Your task to perform on an android device: change keyboard looks Image 0: 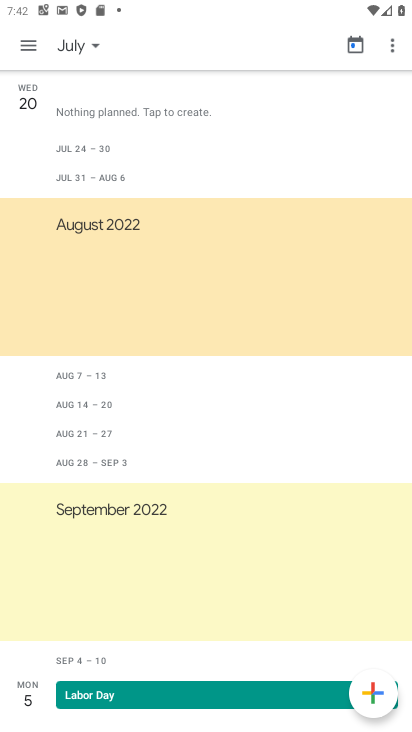
Step 0: press home button
Your task to perform on an android device: change keyboard looks Image 1: 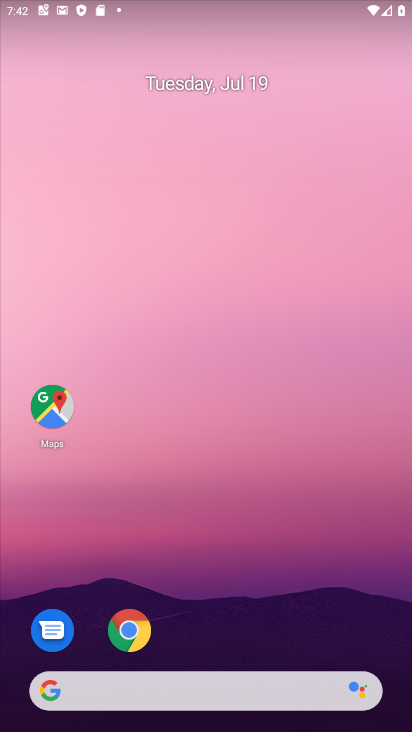
Step 1: drag from (299, 634) to (238, 91)
Your task to perform on an android device: change keyboard looks Image 2: 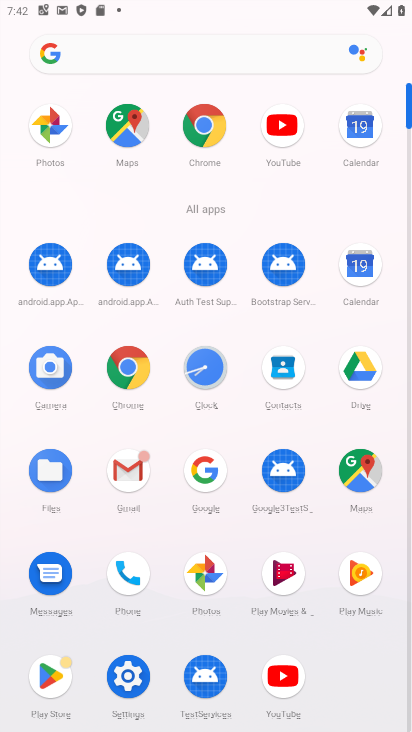
Step 2: click (127, 689)
Your task to perform on an android device: change keyboard looks Image 3: 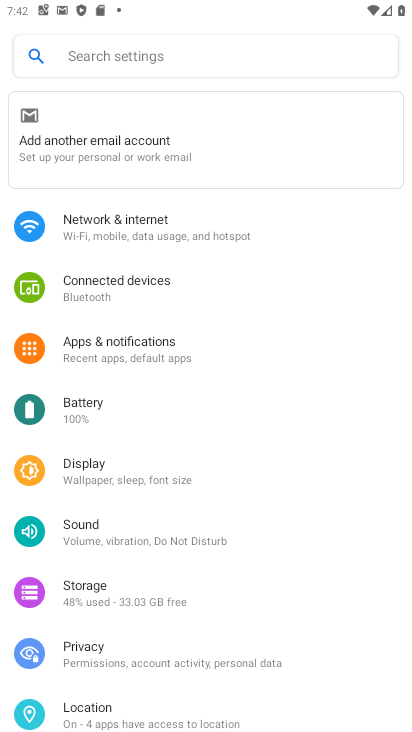
Step 3: drag from (275, 650) to (306, 174)
Your task to perform on an android device: change keyboard looks Image 4: 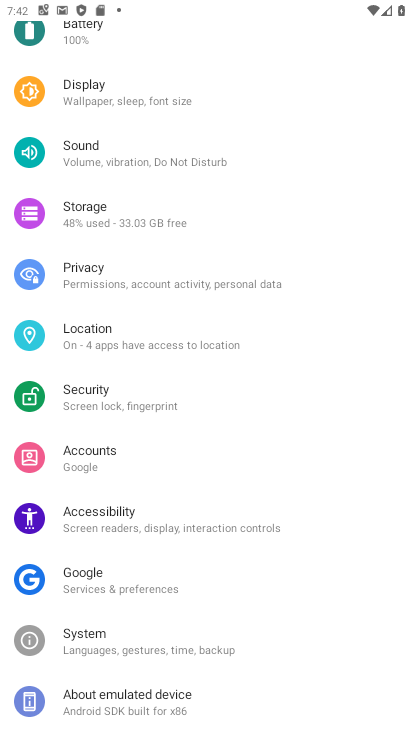
Step 4: click (168, 641)
Your task to perform on an android device: change keyboard looks Image 5: 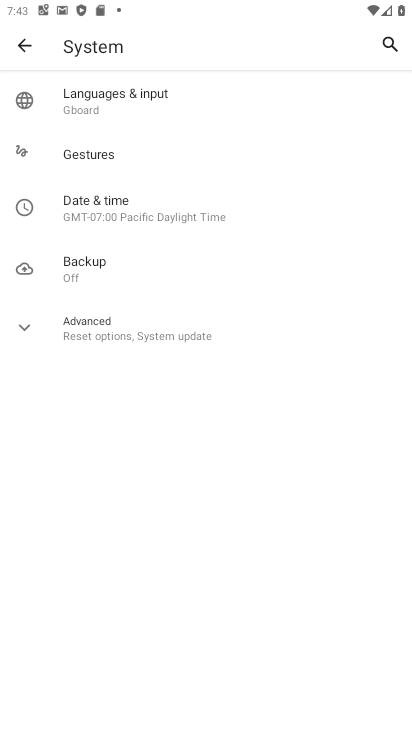
Step 5: click (92, 99)
Your task to perform on an android device: change keyboard looks Image 6: 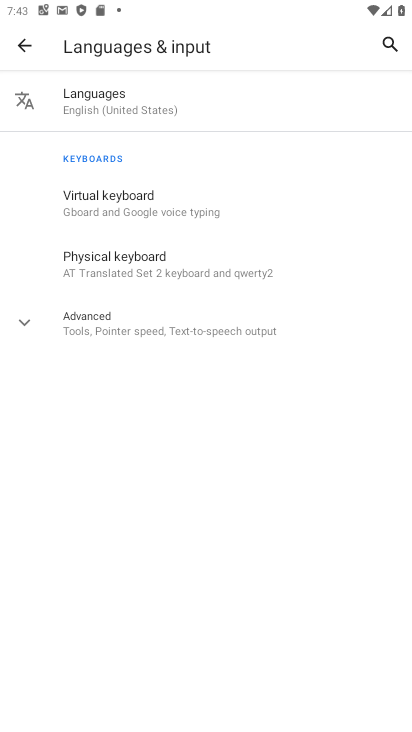
Step 6: click (123, 212)
Your task to perform on an android device: change keyboard looks Image 7: 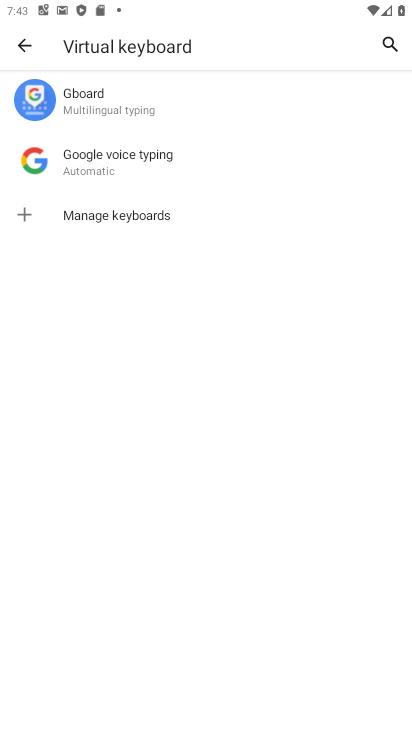
Step 7: click (105, 114)
Your task to perform on an android device: change keyboard looks Image 8: 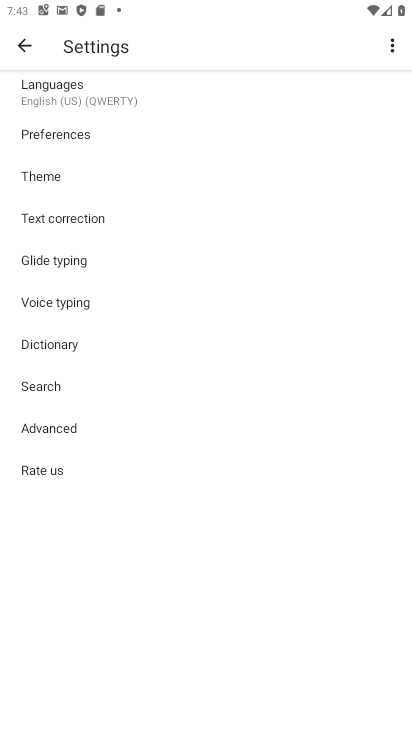
Step 8: click (38, 172)
Your task to perform on an android device: change keyboard looks Image 9: 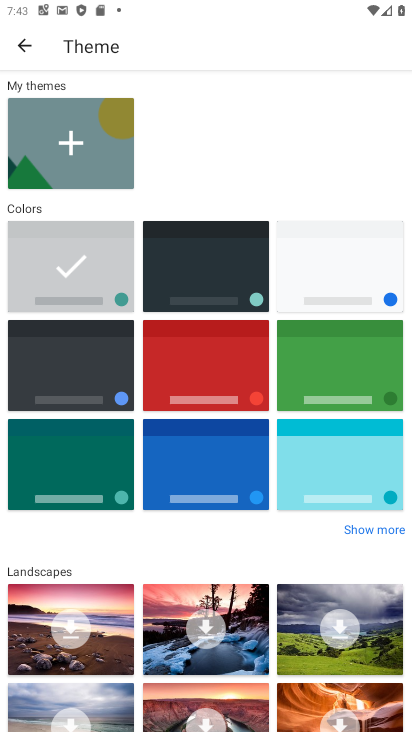
Step 9: click (341, 272)
Your task to perform on an android device: change keyboard looks Image 10: 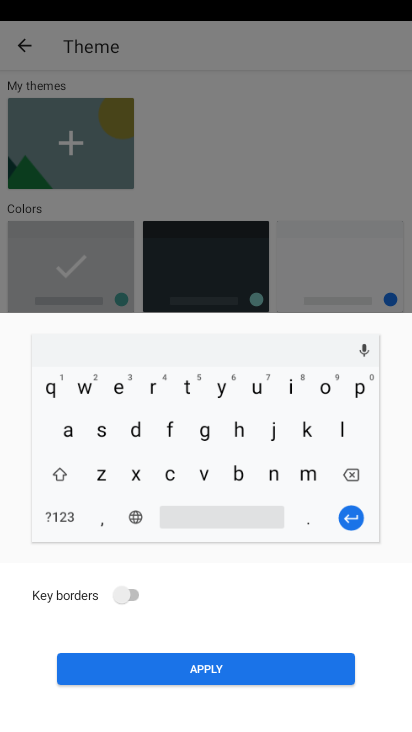
Step 10: click (202, 660)
Your task to perform on an android device: change keyboard looks Image 11: 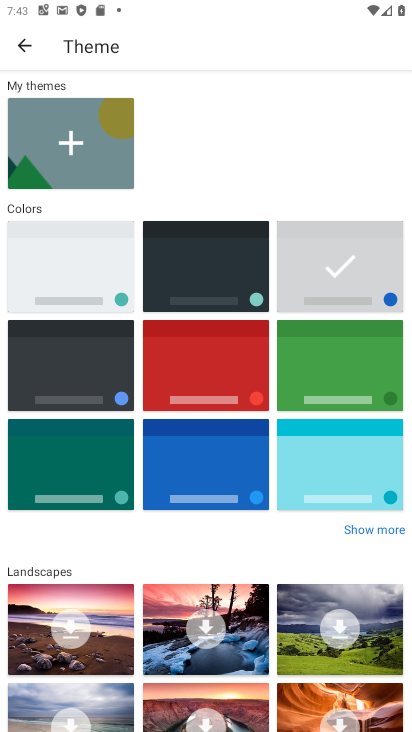
Step 11: task complete